Your task to perform on an android device: see sites visited before in the chrome app Image 0: 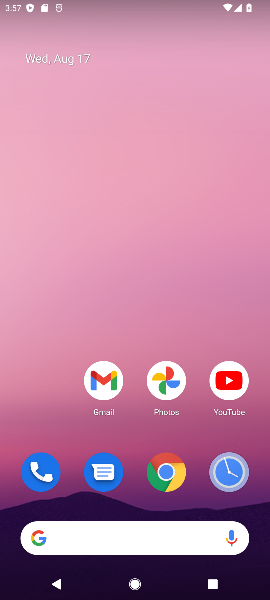
Step 0: click (164, 472)
Your task to perform on an android device: see sites visited before in the chrome app Image 1: 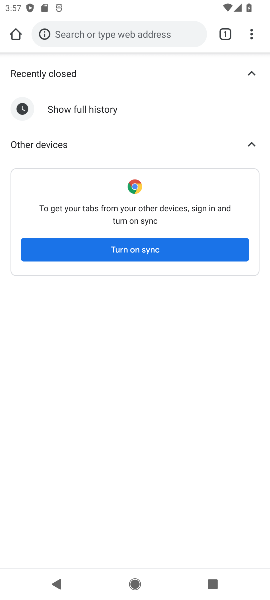
Step 1: click (248, 35)
Your task to perform on an android device: see sites visited before in the chrome app Image 2: 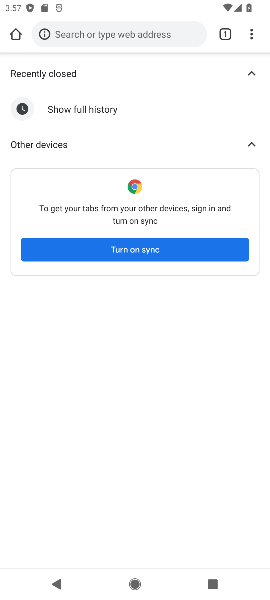
Step 2: click (251, 35)
Your task to perform on an android device: see sites visited before in the chrome app Image 3: 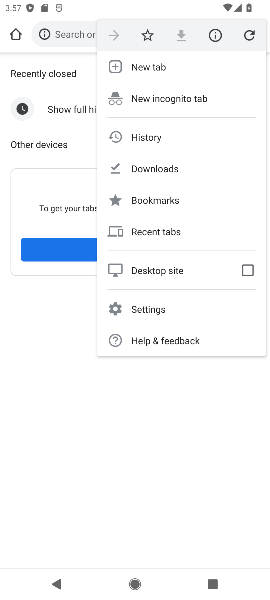
Step 3: click (181, 229)
Your task to perform on an android device: see sites visited before in the chrome app Image 4: 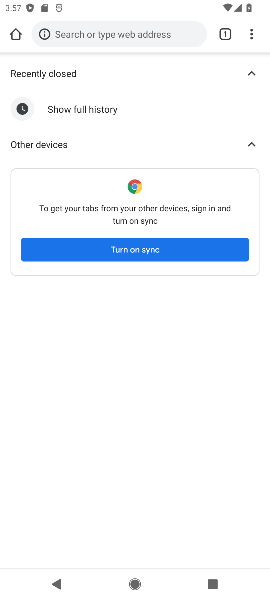
Step 4: task complete